Your task to perform on an android device: Open my contact list Image 0: 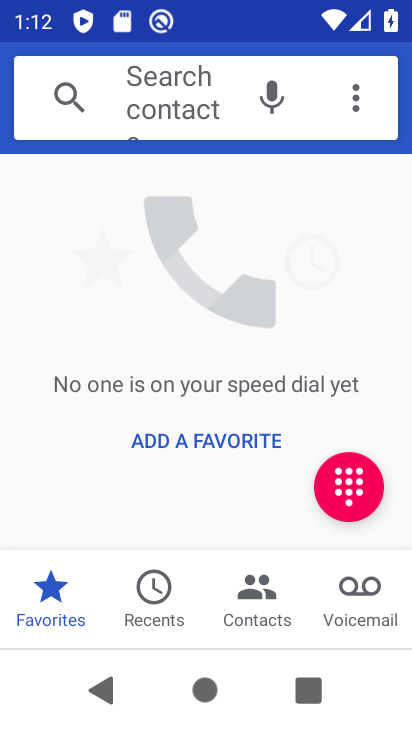
Step 0: press home button
Your task to perform on an android device: Open my contact list Image 1: 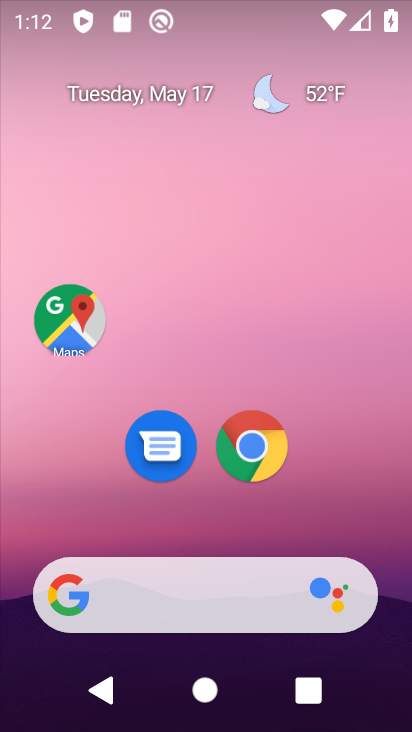
Step 1: drag from (362, 538) to (321, 131)
Your task to perform on an android device: Open my contact list Image 2: 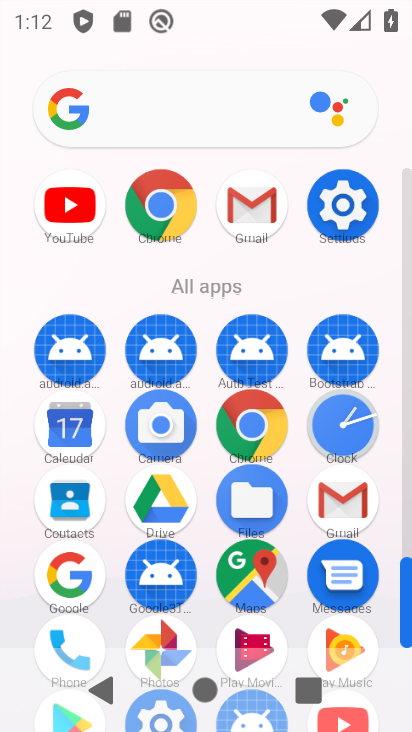
Step 2: click (81, 505)
Your task to perform on an android device: Open my contact list Image 3: 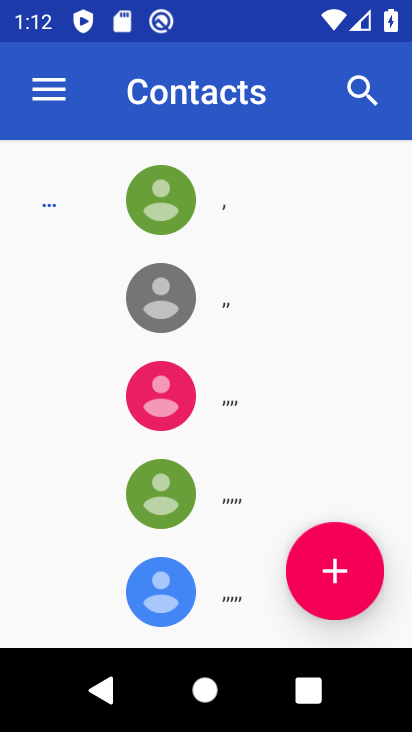
Step 3: task complete